Your task to perform on an android device: Go to settings Image 0: 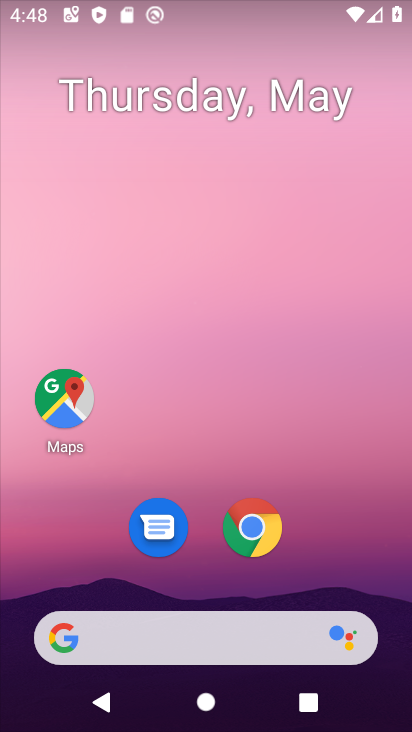
Step 0: drag from (364, 528) to (250, 77)
Your task to perform on an android device: Go to settings Image 1: 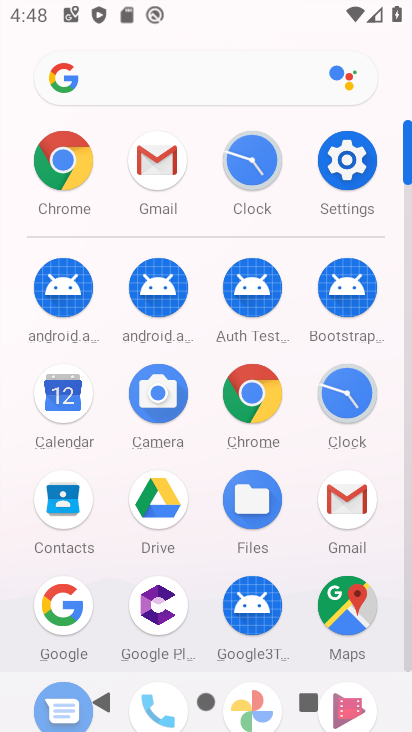
Step 1: click (339, 167)
Your task to perform on an android device: Go to settings Image 2: 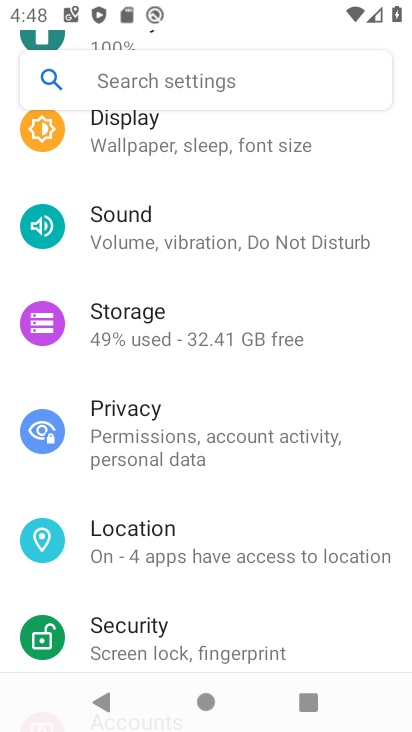
Step 2: task complete